Your task to perform on an android device: Open the calendar and show me this week's events Image 0: 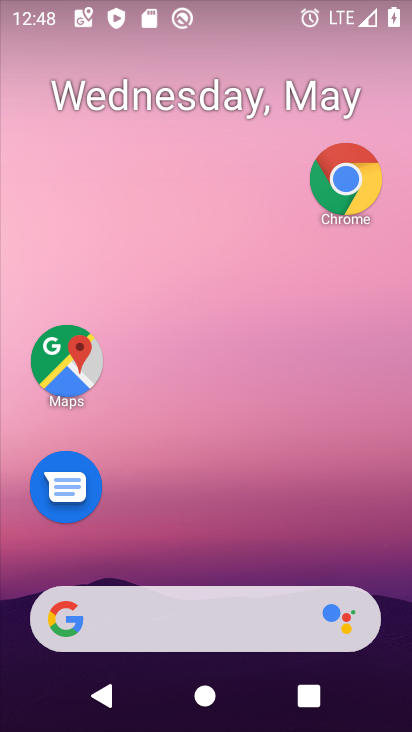
Step 0: drag from (169, 545) to (173, 277)
Your task to perform on an android device: Open the calendar and show me this week's events Image 1: 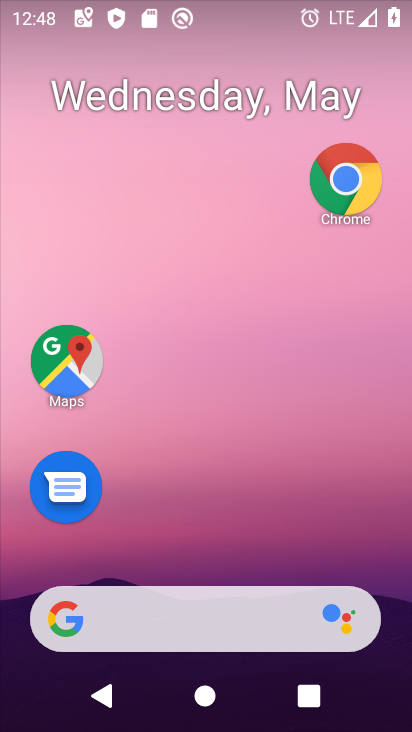
Step 1: drag from (192, 535) to (194, 17)
Your task to perform on an android device: Open the calendar and show me this week's events Image 2: 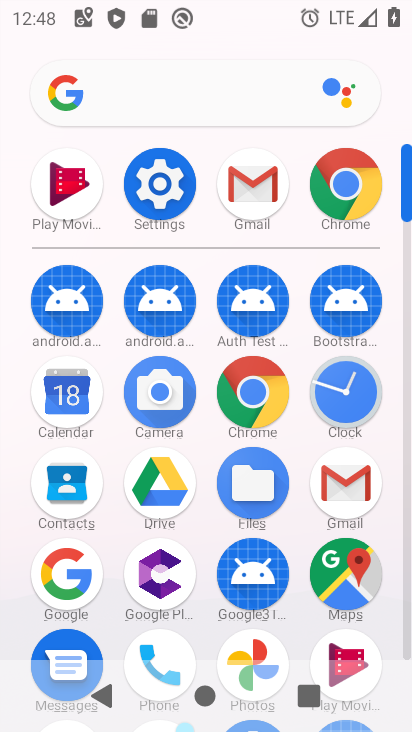
Step 2: click (58, 399)
Your task to perform on an android device: Open the calendar and show me this week's events Image 3: 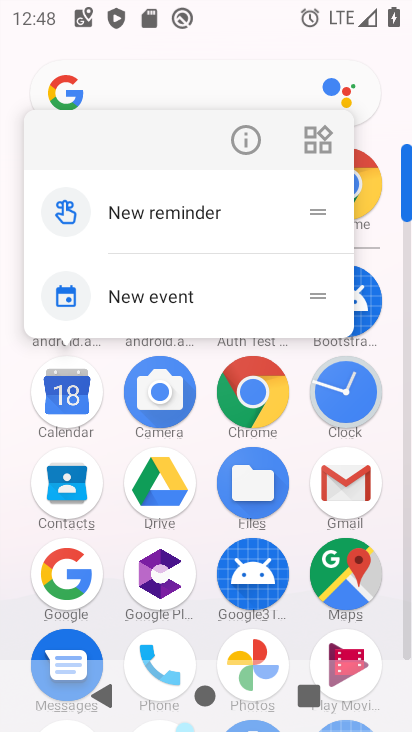
Step 3: click (246, 132)
Your task to perform on an android device: Open the calendar and show me this week's events Image 4: 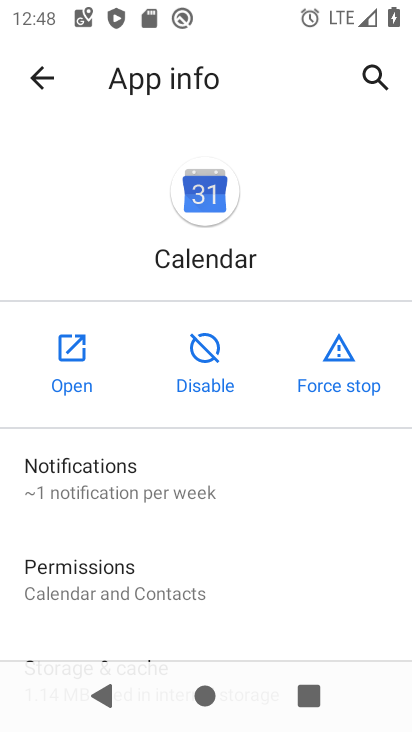
Step 4: click (74, 343)
Your task to perform on an android device: Open the calendar and show me this week's events Image 5: 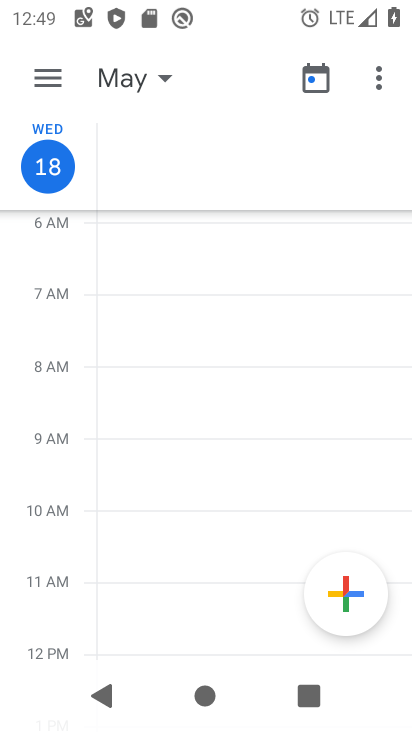
Step 5: click (166, 77)
Your task to perform on an android device: Open the calendar and show me this week's events Image 6: 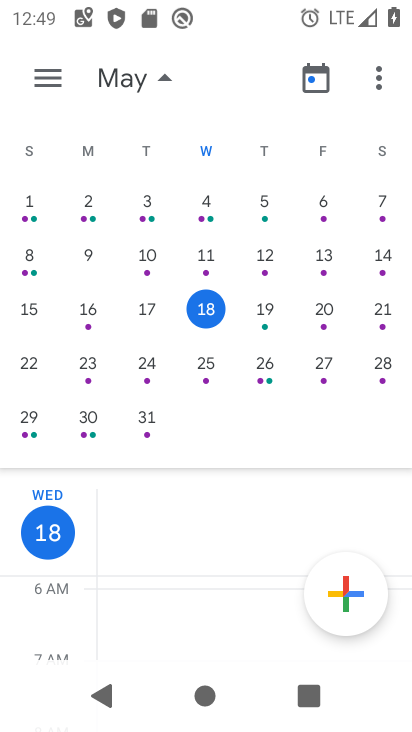
Step 6: click (337, 307)
Your task to perform on an android device: Open the calendar and show me this week's events Image 7: 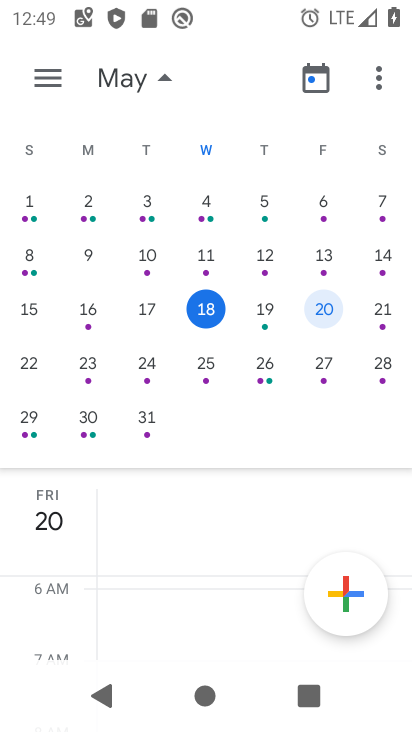
Step 7: task complete